Your task to perform on an android device: make emails show in primary in the gmail app Image 0: 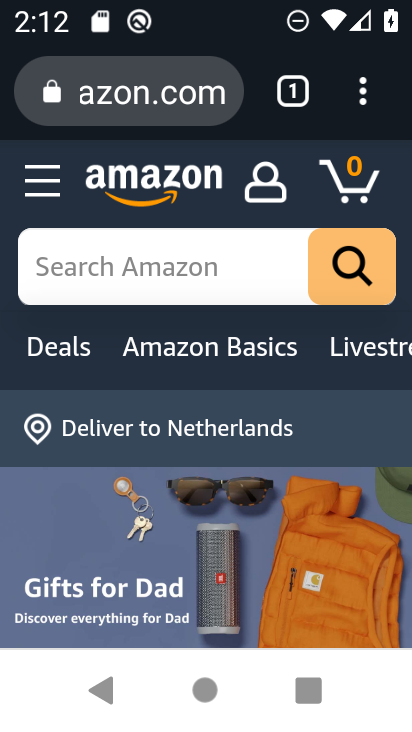
Step 0: press home button
Your task to perform on an android device: make emails show in primary in the gmail app Image 1: 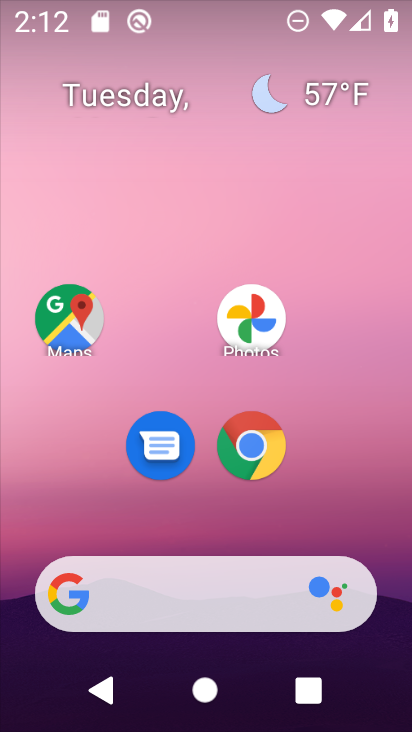
Step 1: drag from (375, 481) to (319, 136)
Your task to perform on an android device: make emails show in primary in the gmail app Image 2: 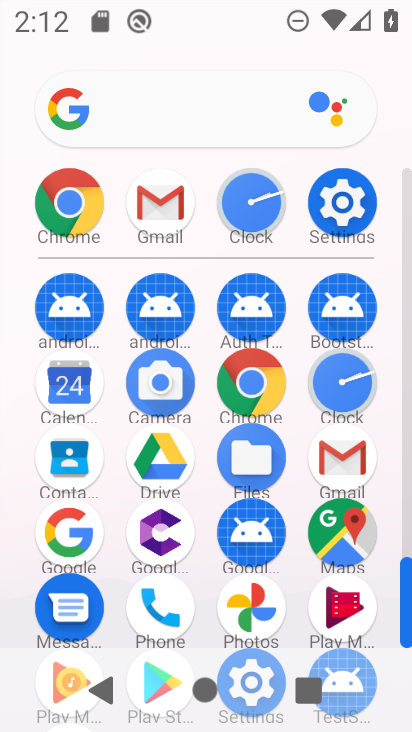
Step 2: click (346, 459)
Your task to perform on an android device: make emails show in primary in the gmail app Image 3: 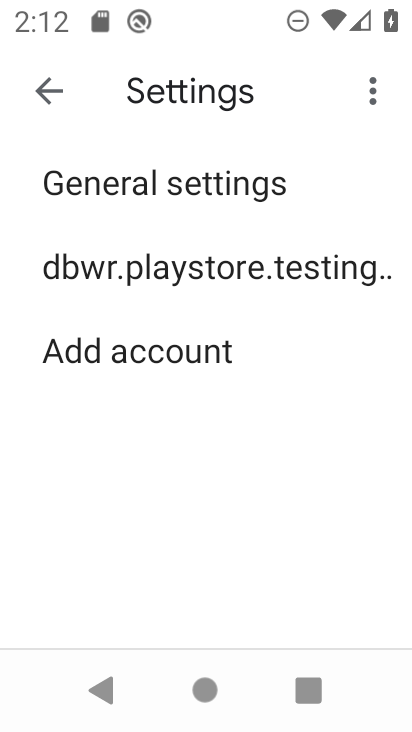
Step 3: click (170, 291)
Your task to perform on an android device: make emails show in primary in the gmail app Image 4: 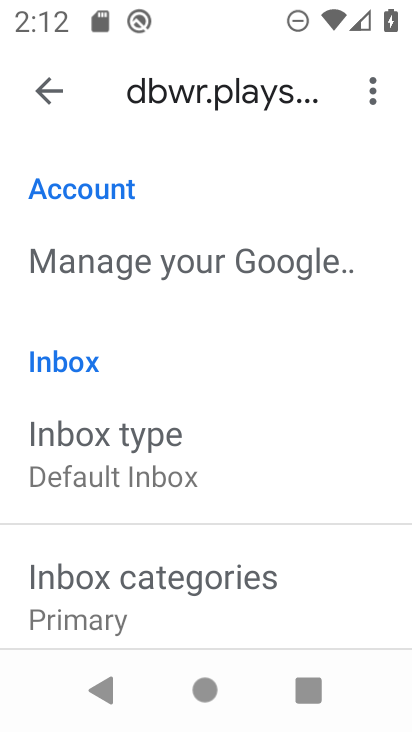
Step 4: drag from (263, 395) to (241, 298)
Your task to perform on an android device: make emails show in primary in the gmail app Image 5: 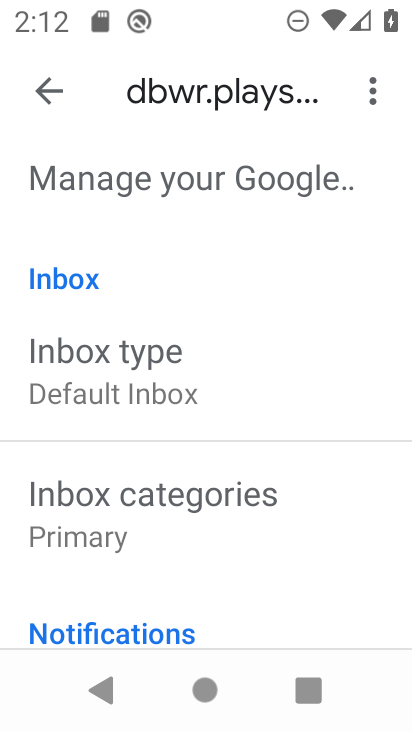
Step 5: drag from (293, 454) to (260, 343)
Your task to perform on an android device: make emails show in primary in the gmail app Image 6: 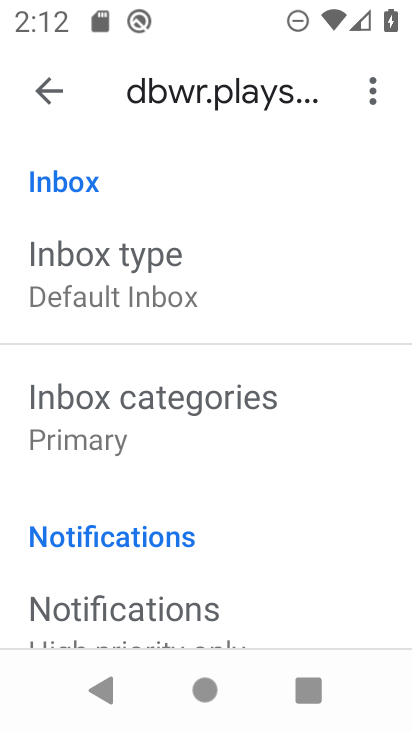
Step 6: drag from (313, 483) to (285, 384)
Your task to perform on an android device: make emails show in primary in the gmail app Image 7: 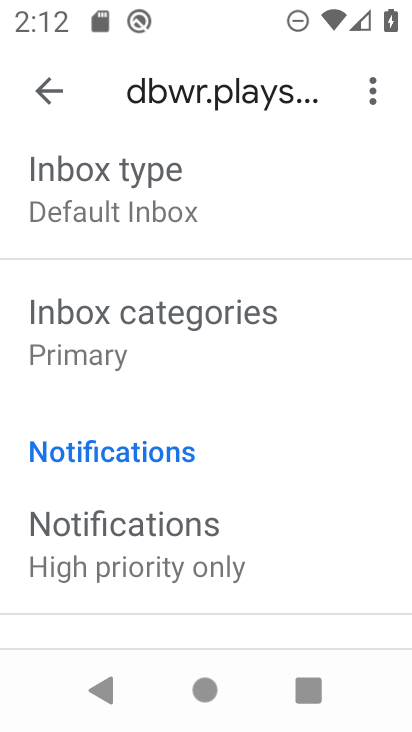
Step 7: drag from (300, 410) to (286, 356)
Your task to perform on an android device: make emails show in primary in the gmail app Image 8: 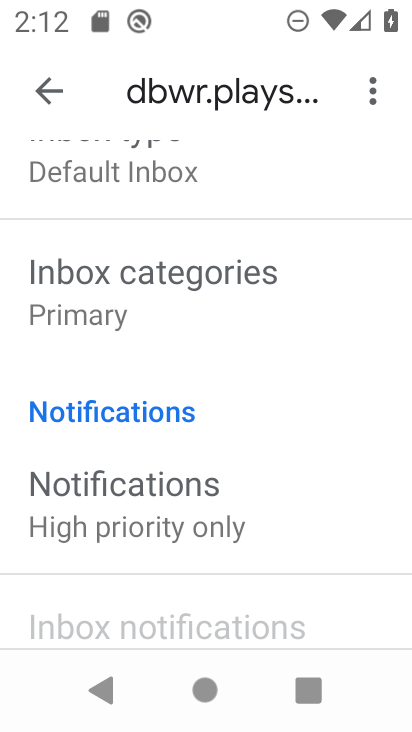
Step 8: drag from (316, 460) to (299, 381)
Your task to perform on an android device: make emails show in primary in the gmail app Image 9: 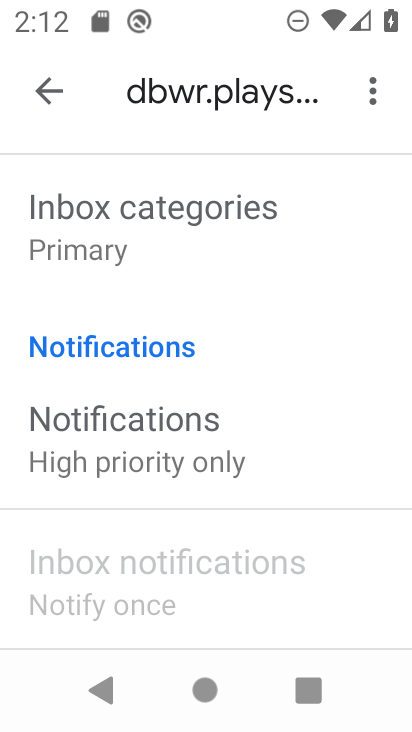
Step 9: drag from (308, 481) to (289, 368)
Your task to perform on an android device: make emails show in primary in the gmail app Image 10: 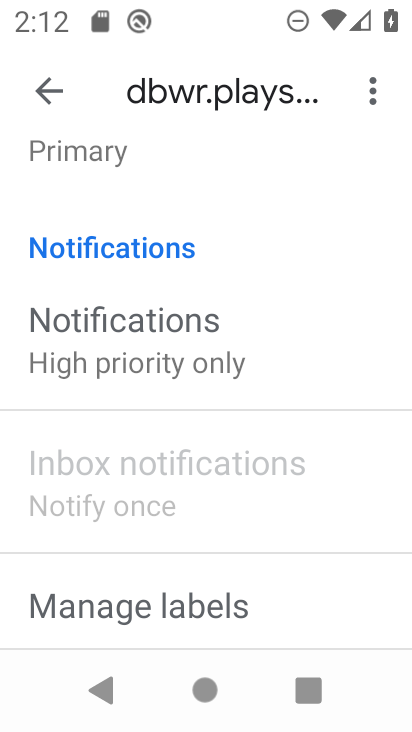
Step 10: drag from (271, 313) to (291, 454)
Your task to perform on an android device: make emails show in primary in the gmail app Image 11: 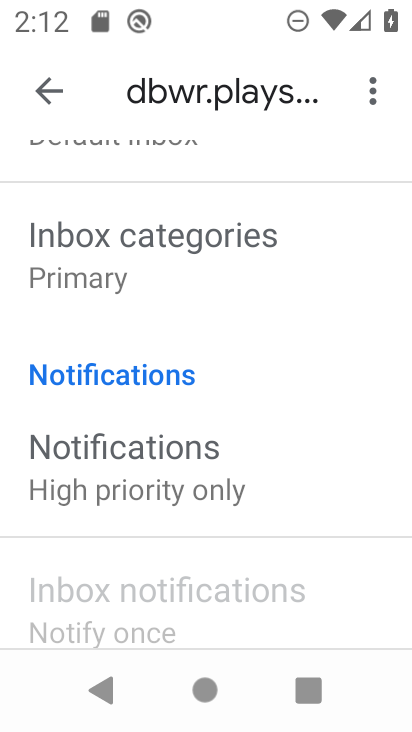
Step 11: drag from (294, 293) to (323, 426)
Your task to perform on an android device: make emails show in primary in the gmail app Image 12: 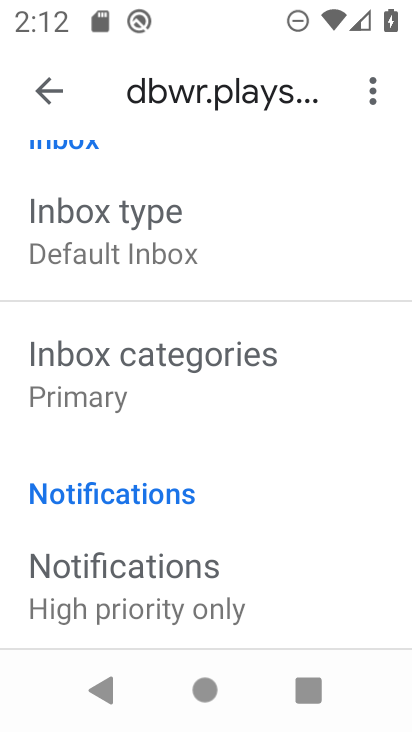
Step 12: click (243, 383)
Your task to perform on an android device: make emails show in primary in the gmail app Image 13: 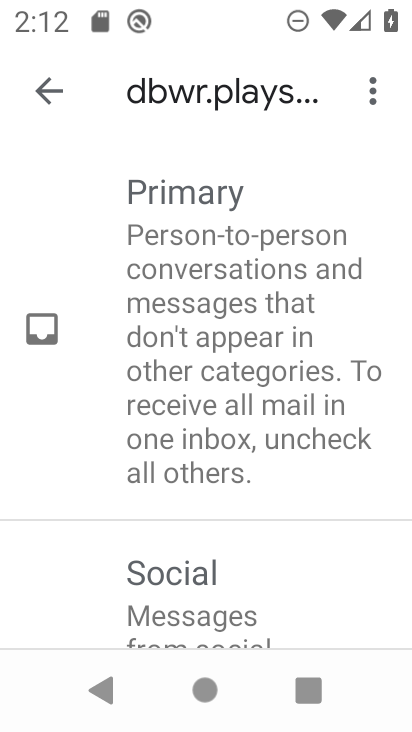
Step 13: task complete